Your task to perform on an android device: change timer sound Image 0: 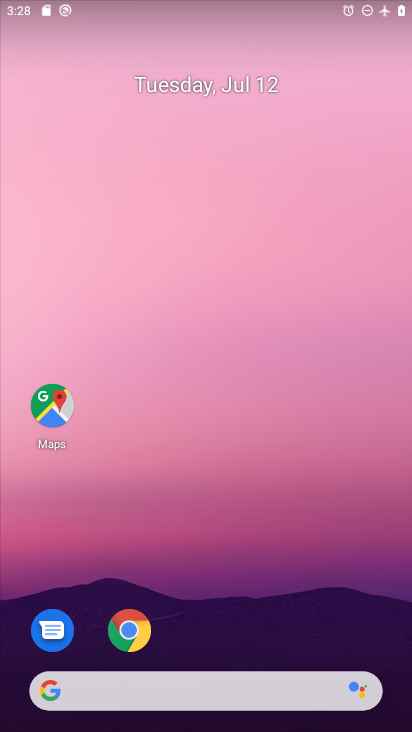
Step 0: drag from (197, 632) to (192, 188)
Your task to perform on an android device: change timer sound Image 1: 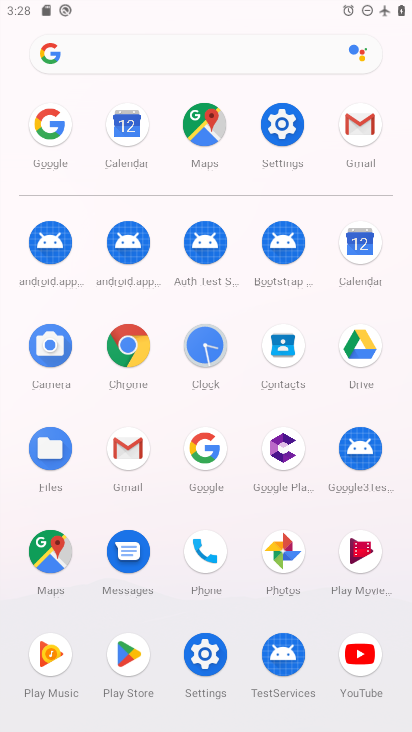
Step 1: click (214, 347)
Your task to perform on an android device: change timer sound Image 2: 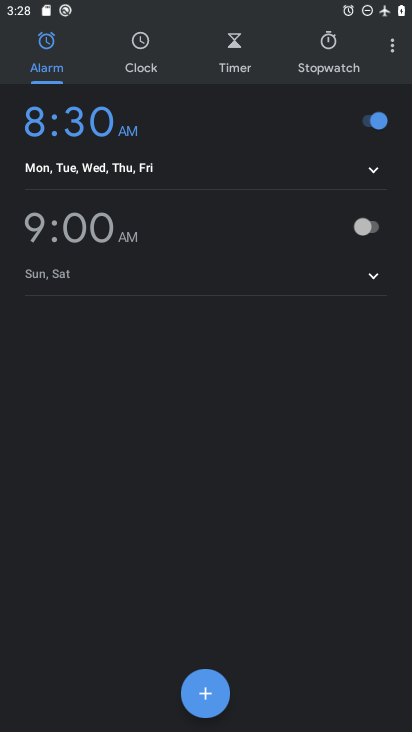
Step 2: click (387, 48)
Your task to perform on an android device: change timer sound Image 3: 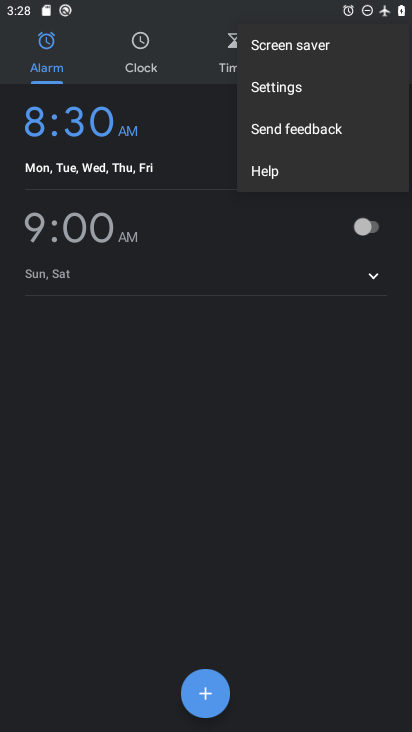
Step 3: click (306, 94)
Your task to perform on an android device: change timer sound Image 4: 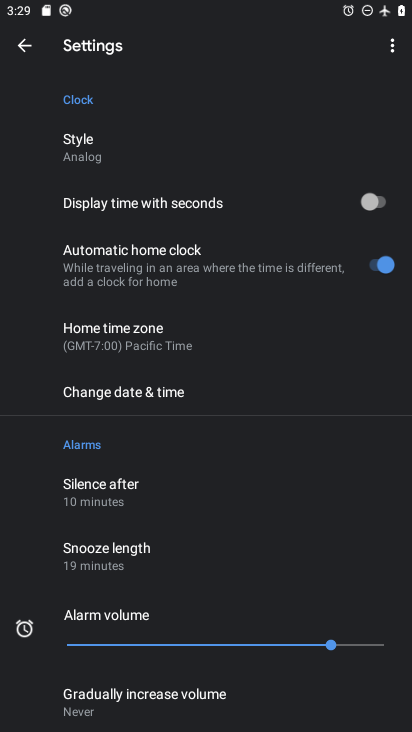
Step 4: drag from (173, 575) to (196, 240)
Your task to perform on an android device: change timer sound Image 5: 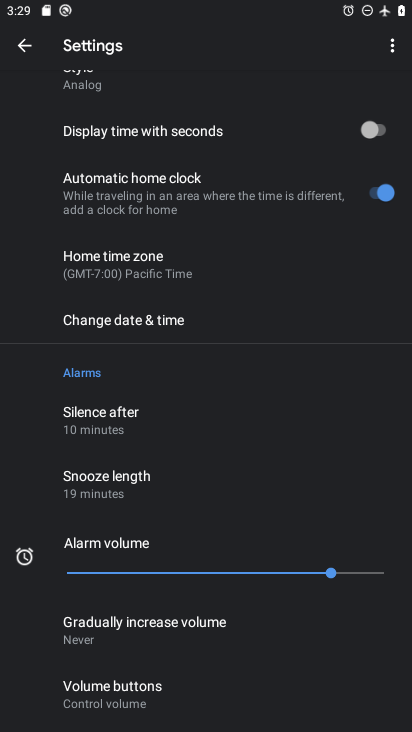
Step 5: drag from (196, 621) to (224, 287)
Your task to perform on an android device: change timer sound Image 6: 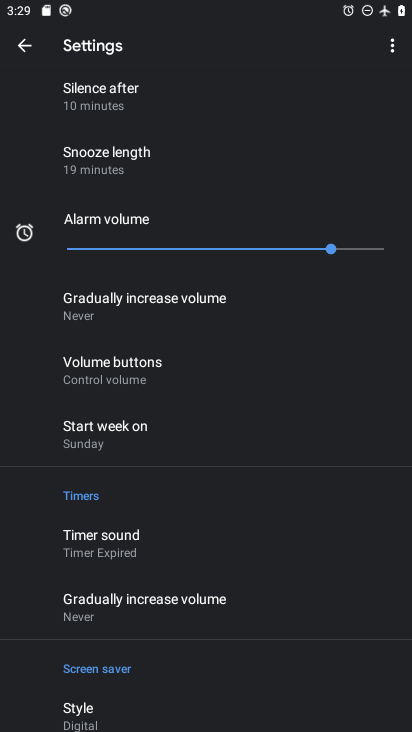
Step 6: click (164, 535)
Your task to perform on an android device: change timer sound Image 7: 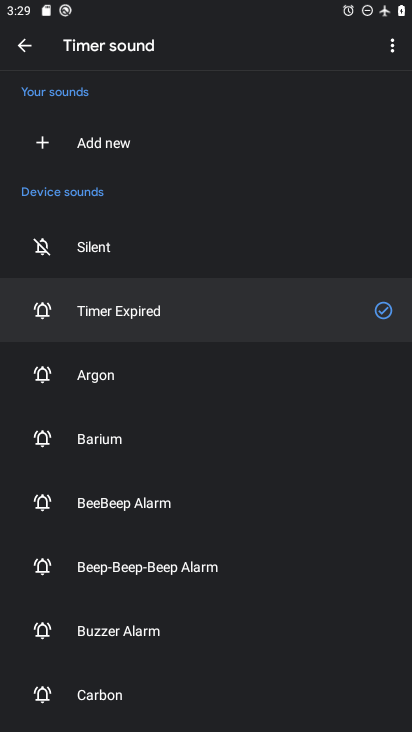
Step 7: click (186, 394)
Your task to perform on an android device: change timer sound Image 8: 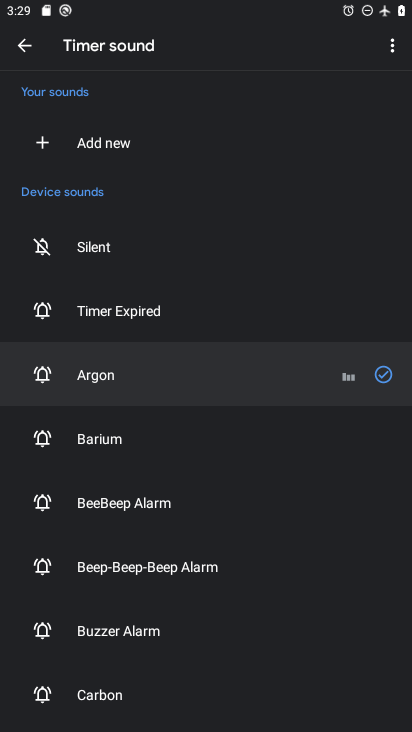
Step 8: task complete